Your task to perform on an android device: Go to Reddit.com Image 0: 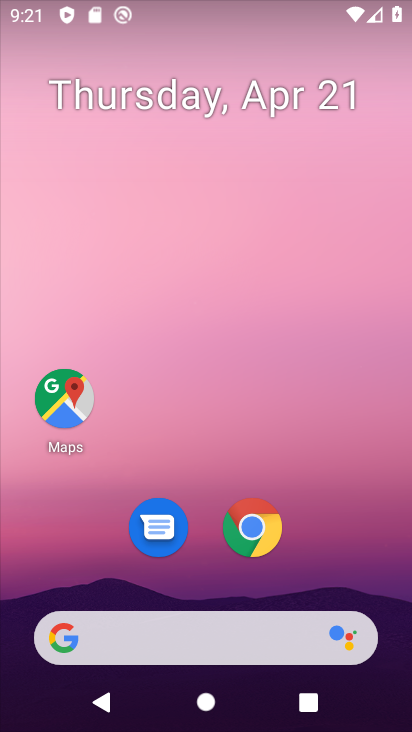
Step 0: click (259, 537)
Your task to perform on an android device: Go to Reddit.com Image 1: 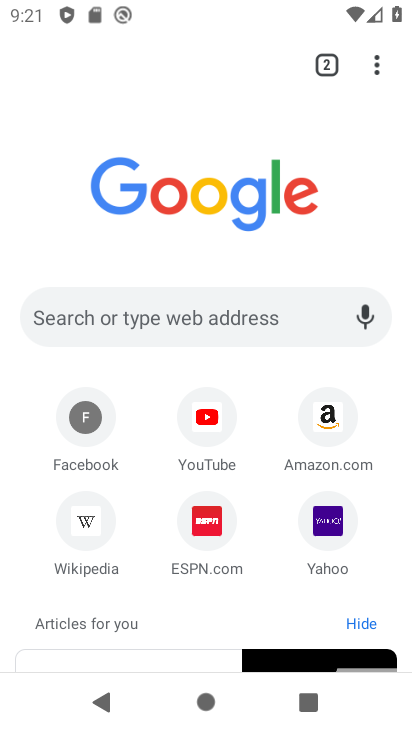
Step 1: click (214, 316)
Your task to perform on an android device: Go to Reddit.com Image 2: 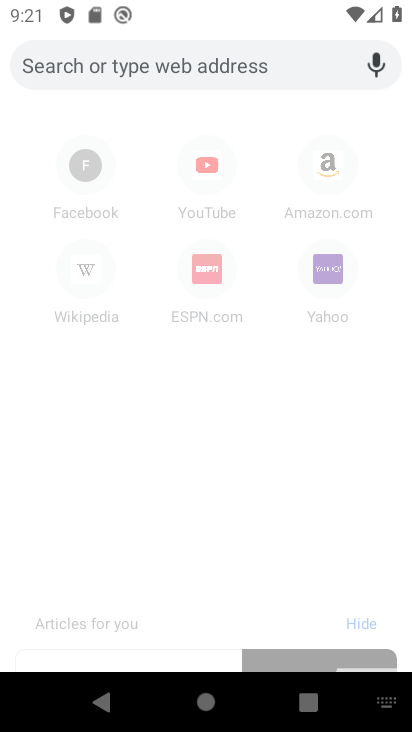
Step 2: type "Reddit.com"
Your task to perform on an android device: Go to Reddit.com Image 3: 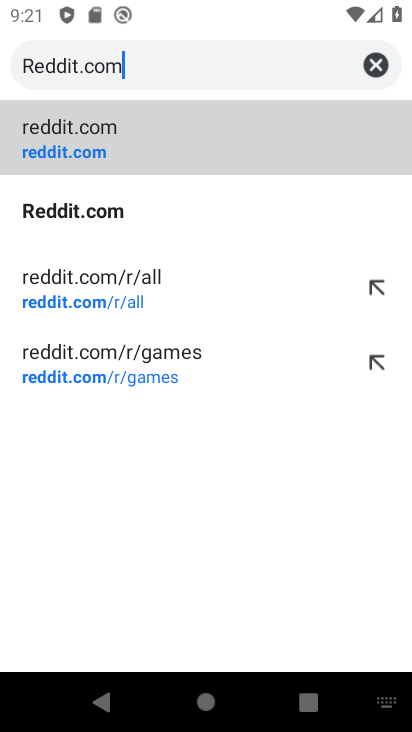
Step 3: click (135, 153)
Your task to perform on an android device: Go to Reddit.com Image 4: 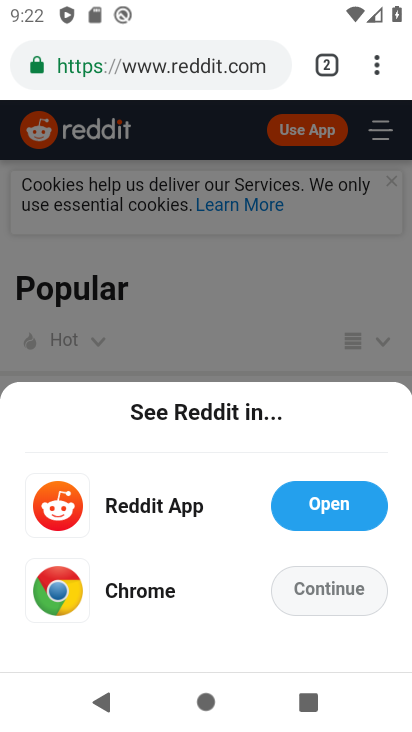
Step 4: task complete